Your task to perform on an android device: turn on data saver in the chrome app Image 0: 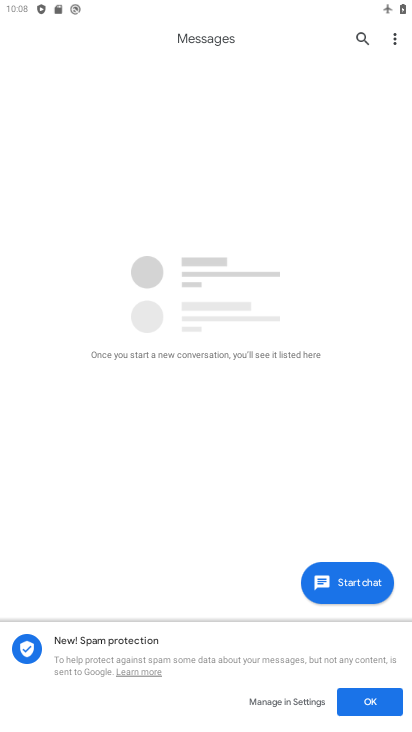
Step 0: press home button
Your task to perform on an android device: turn on data saver in the chrome app Image 1: 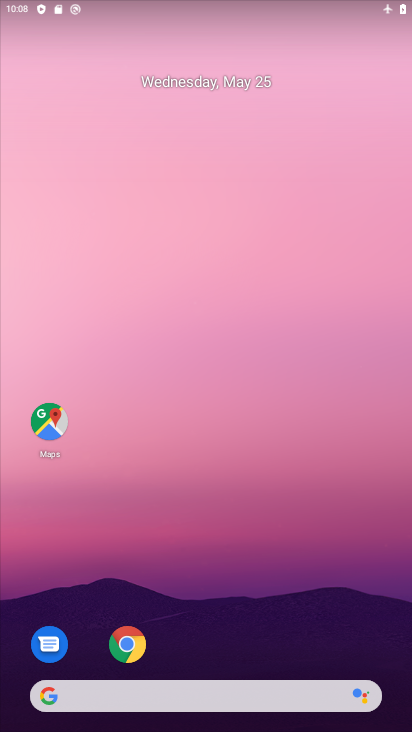
Step 1: click (133, 642)
Your task to perform on an android device: turn on data saver in the chrome app Image 2: 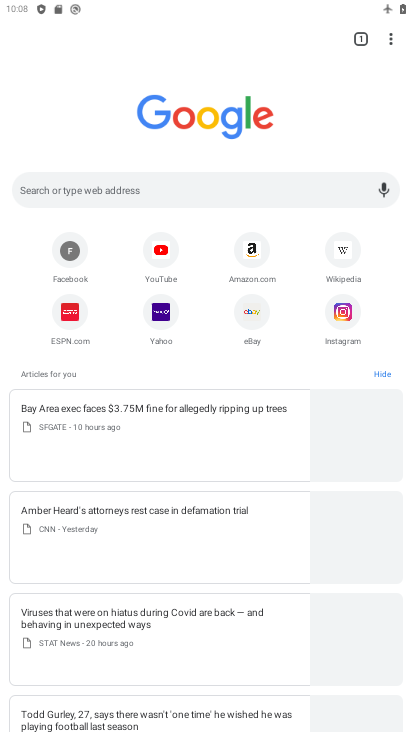
Step 2: click (378, 41)
Your task to perform on an android device: turn on data saver in the chrome app Image 3: 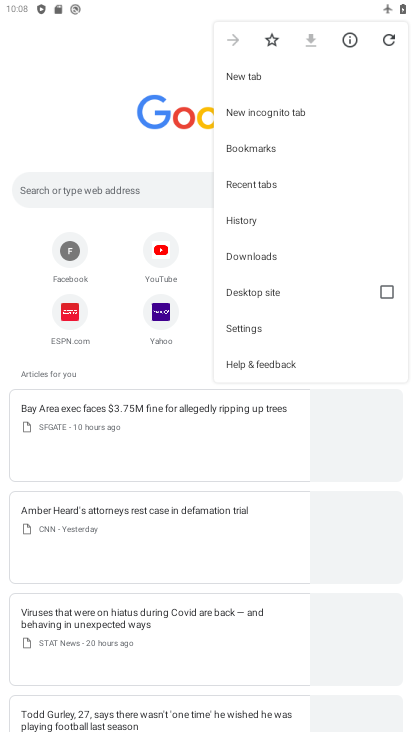
Step 3: click (271, 324)
Your task to perform on an android device: turn on data saver in the chrome app Image 4: 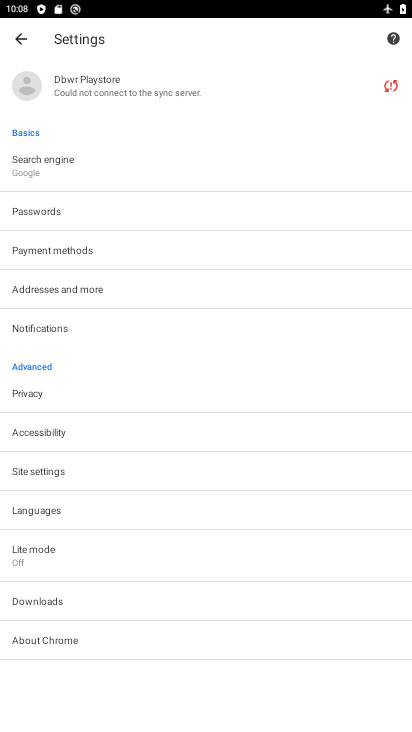
Step 4: drag from (41, 521) to (73, 349)
Your task to perform on an android device: turn on data saver in the chrome app Image 5: 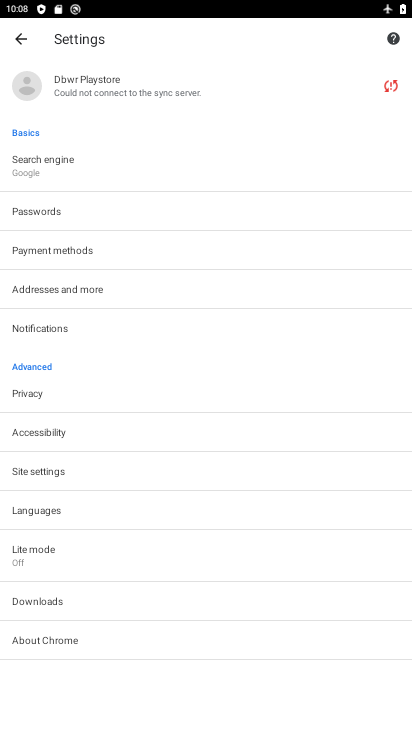
Step 5: click (27, 554)
Your task to perform on an android device: turn on data saver in the chrome app Image 6: 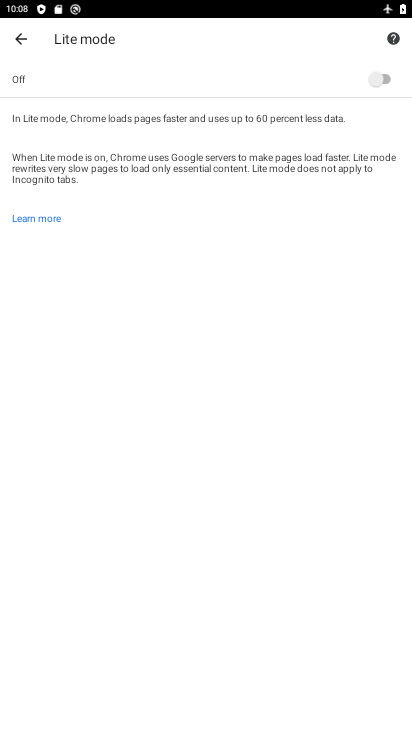
Step 6: click (379, 78)
Your task to perform on an android device: turn on data saver in the chrome app Image 7: 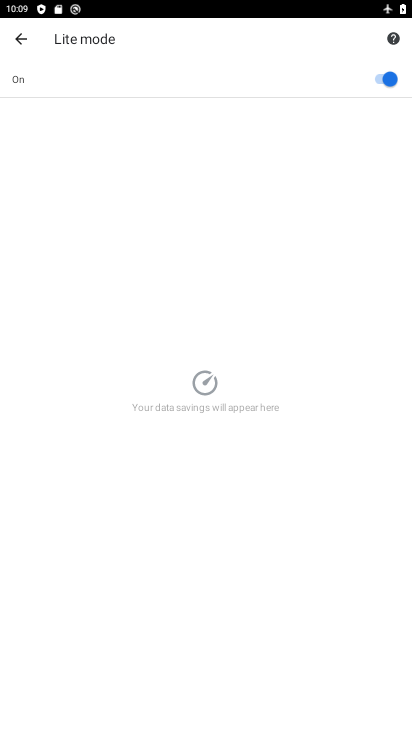
Step 7: task complete